Your task to perform on an android device: Go to Android settings Image 0: 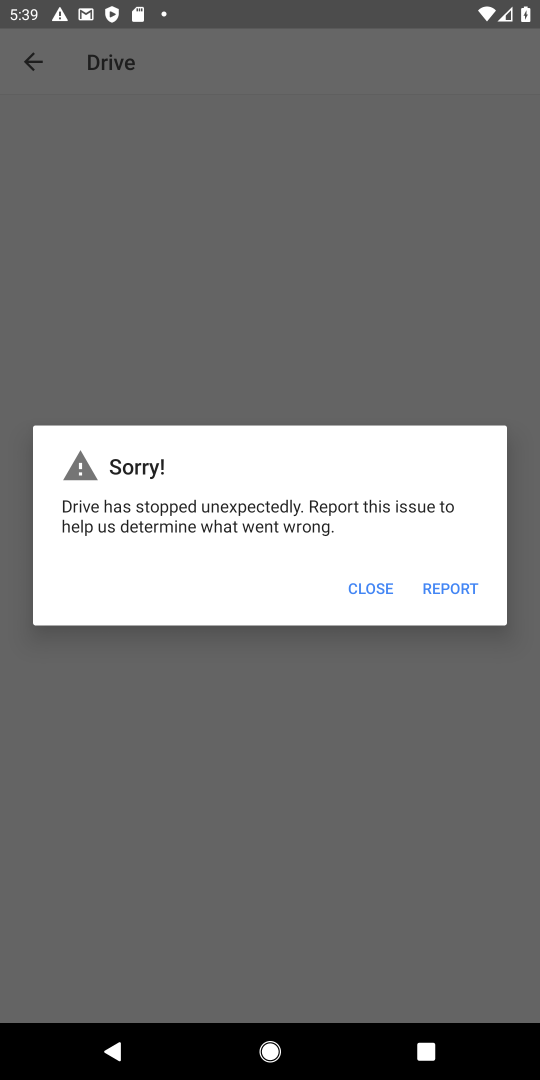
Step 0: press home button
Your task to perform on an android device: Go to Android settings Image 1: 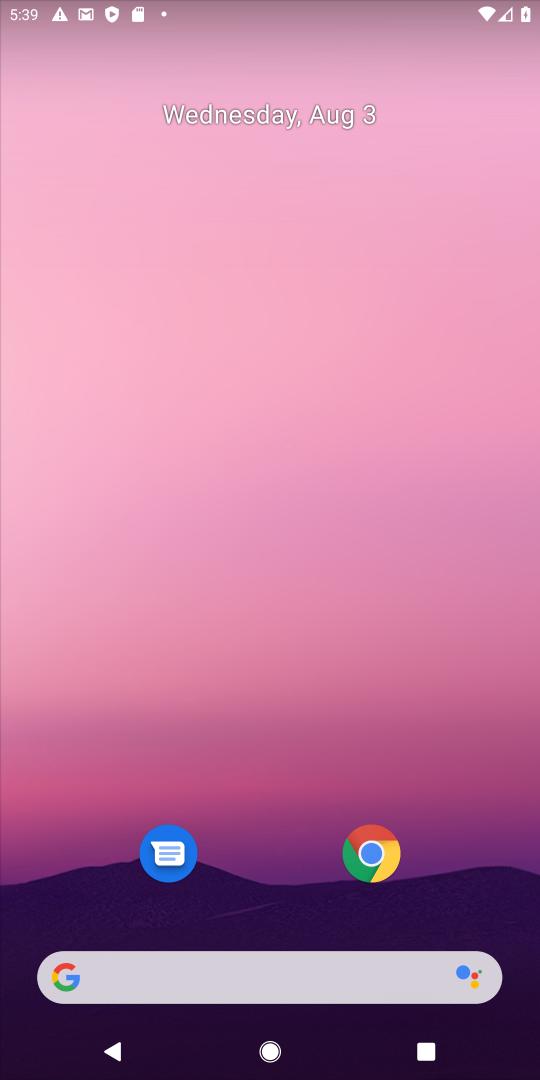
Step 1: drag from (485, 802) to (415, 253)
Your task to perform on an android device: Go to Android settings Image 2: 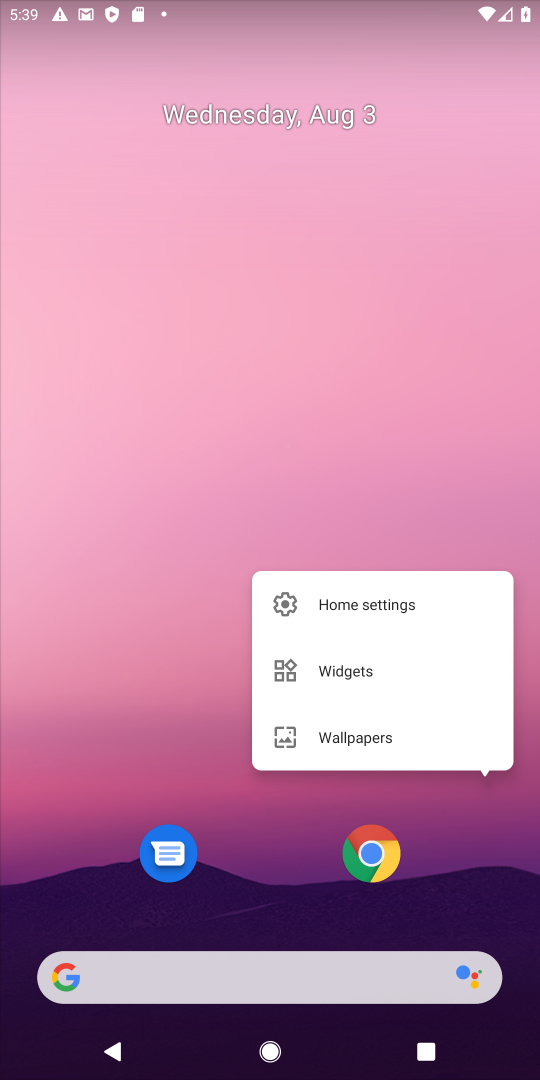
Step 2: click (461, 862)
Your task to perform on an android device: Go to Android settings Image 3: 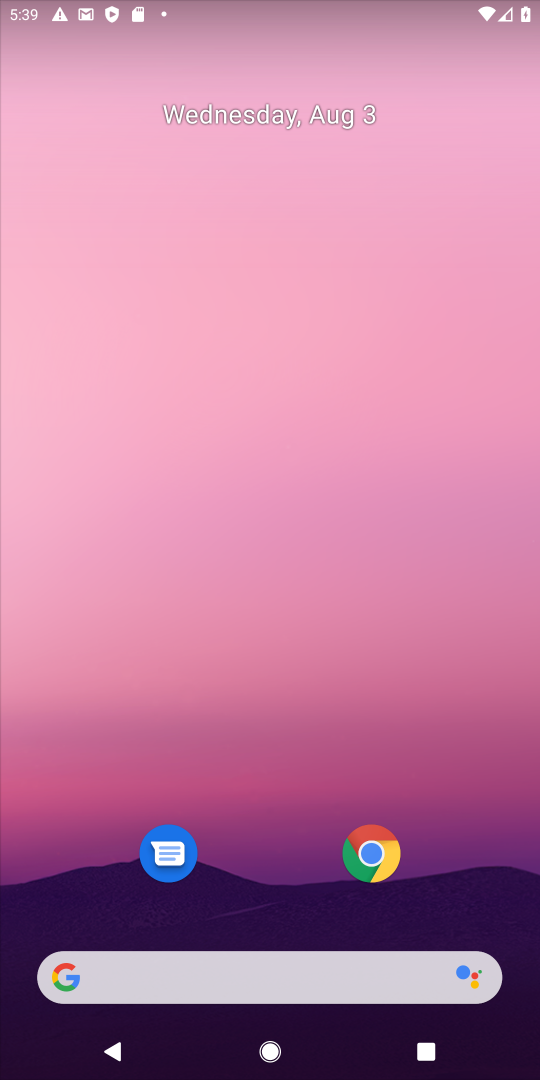
Step 3: drag from (461, 862) to (371, 266)
Your task to perform on an android device: Go to Android settings Image 4: 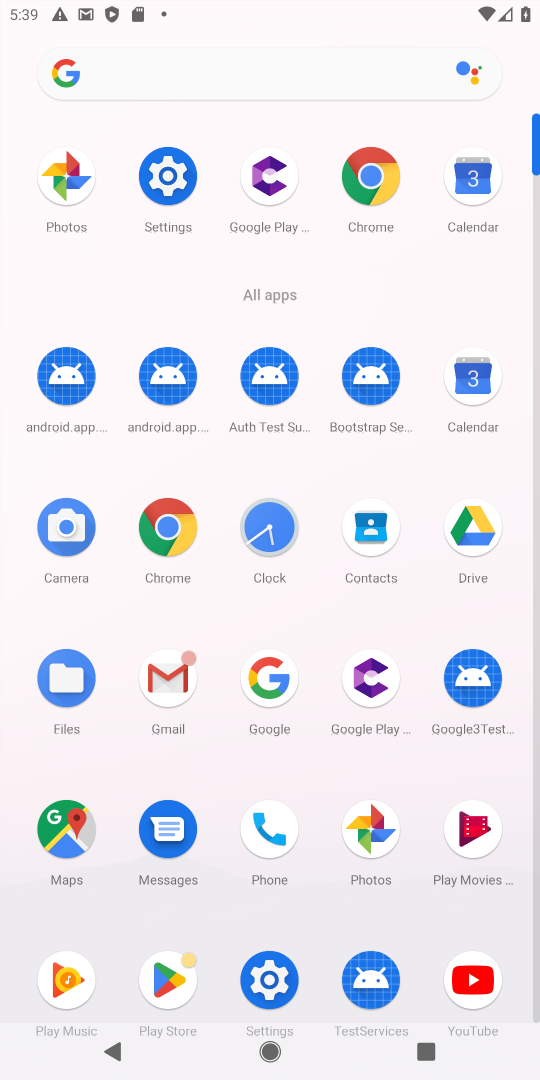
Step 4: click (281, 989)
Your task to perform on an android device: Go to Android settings Image 5: 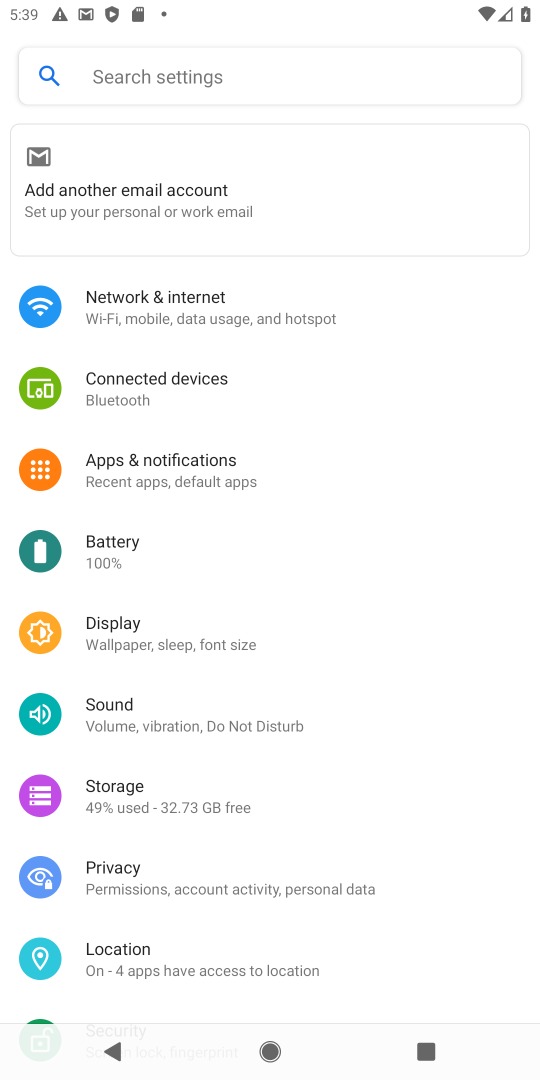
Step 5: task complete